Your task to perform on an android device: Open battery settings Image 0: 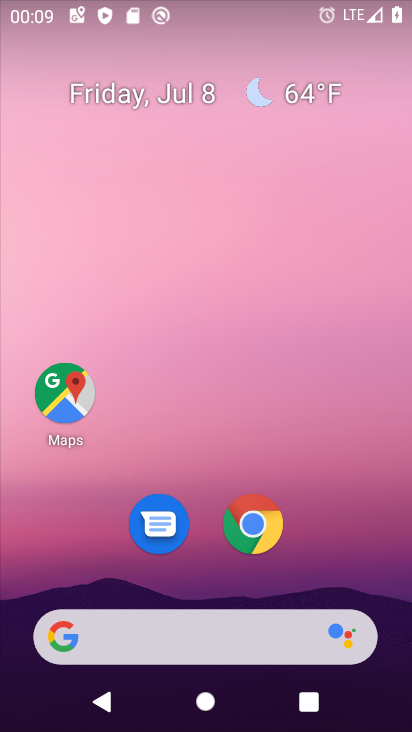
Step 0: drag from (214, 417) to (222, 2)
Your task to perform on an android device: Open battery settings Image 1: 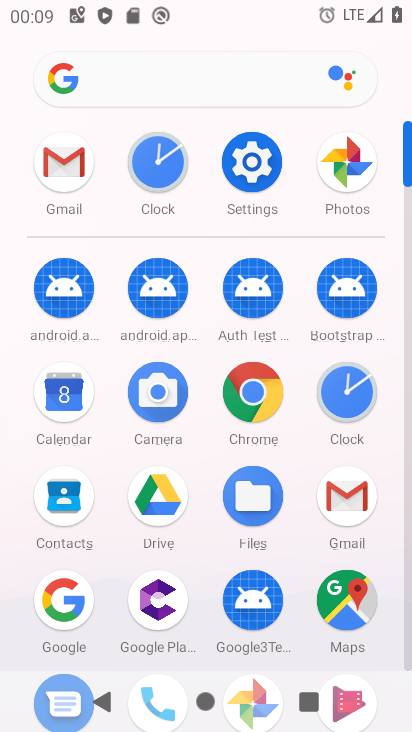
Step 1: click (254, 163)
Your task to perform on an android device: Open battery settings Image 2: 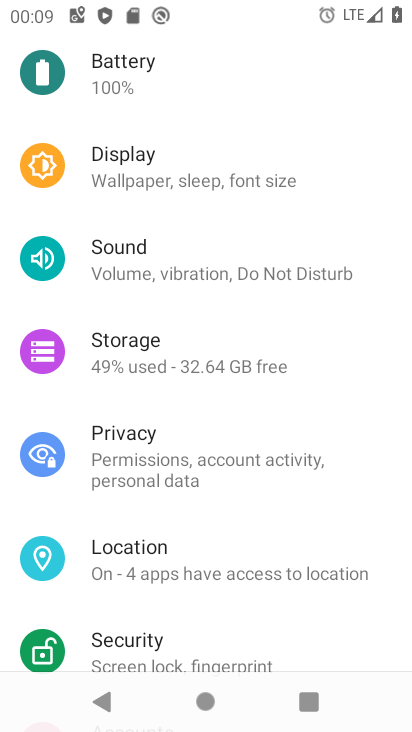
Step 2: click (138, 69)
Your task to perform on an android device: Open battery settings Image 3: 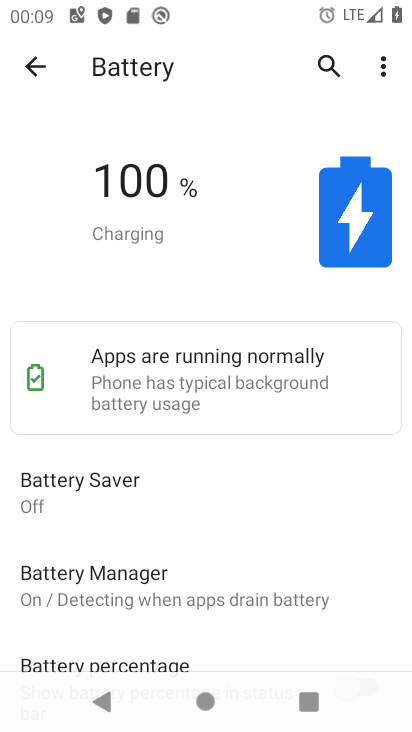
Step 3: task complete